Your task to perform on an android device: What's the news in Bangladesh? Image 0: 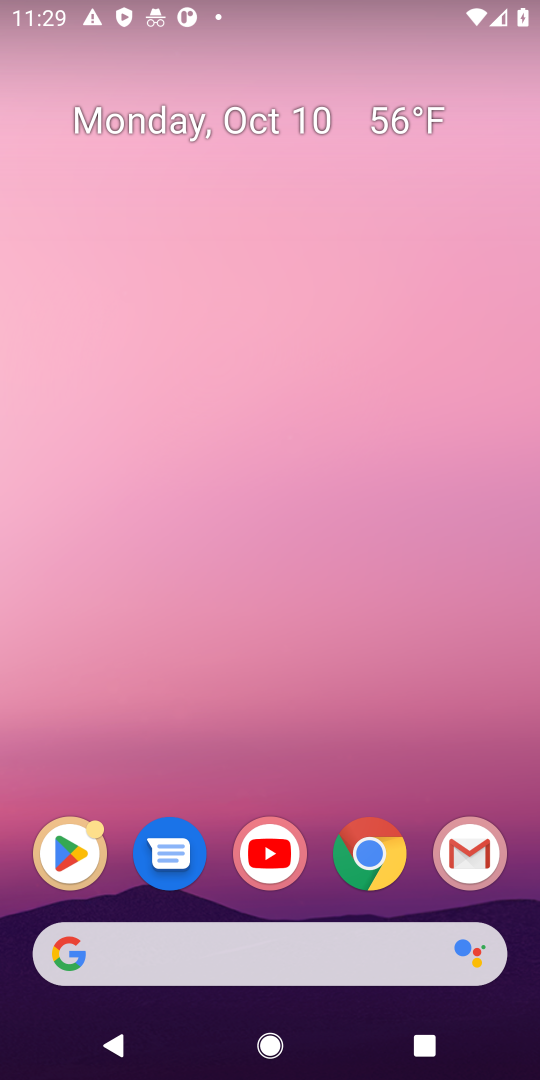
Step 0: drag from (345, 769) to (358, 20)
Your task to perform on an android device: What's the news in Bangladesh? Image 1: 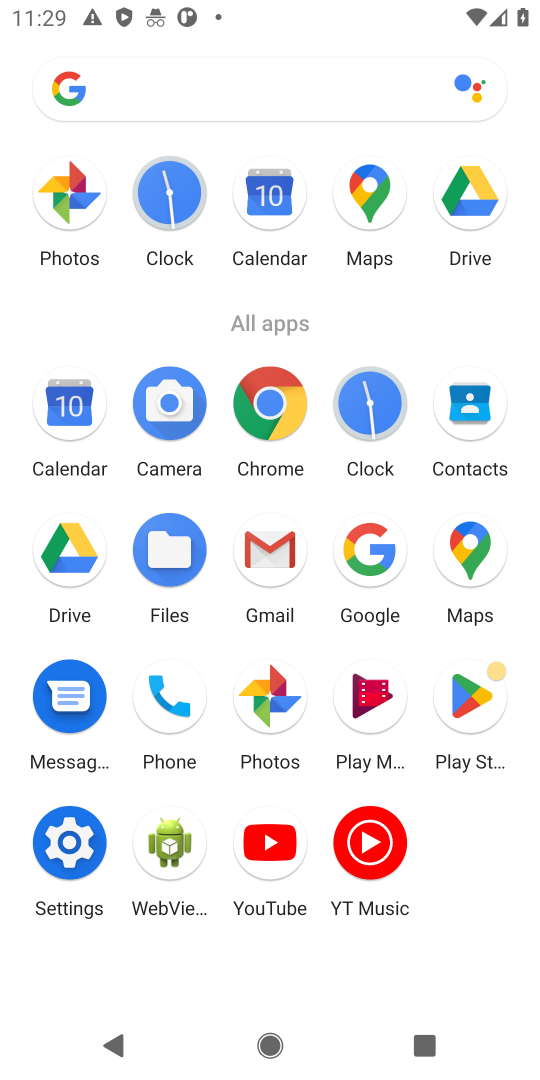
Step 1: drag from (468, 158) to (47, 856)
Your task to perform on an android device: What's the news in Bangladesh? Image 2: 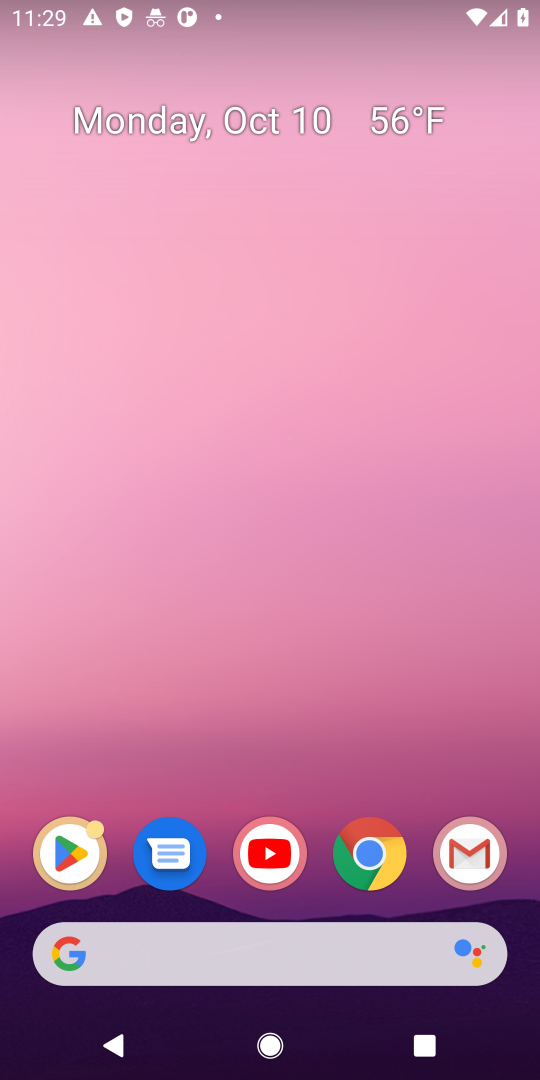
Step 2: click (381, 854)
Your task to perform on an android device: What's the news in Bangladesh? Image 3: 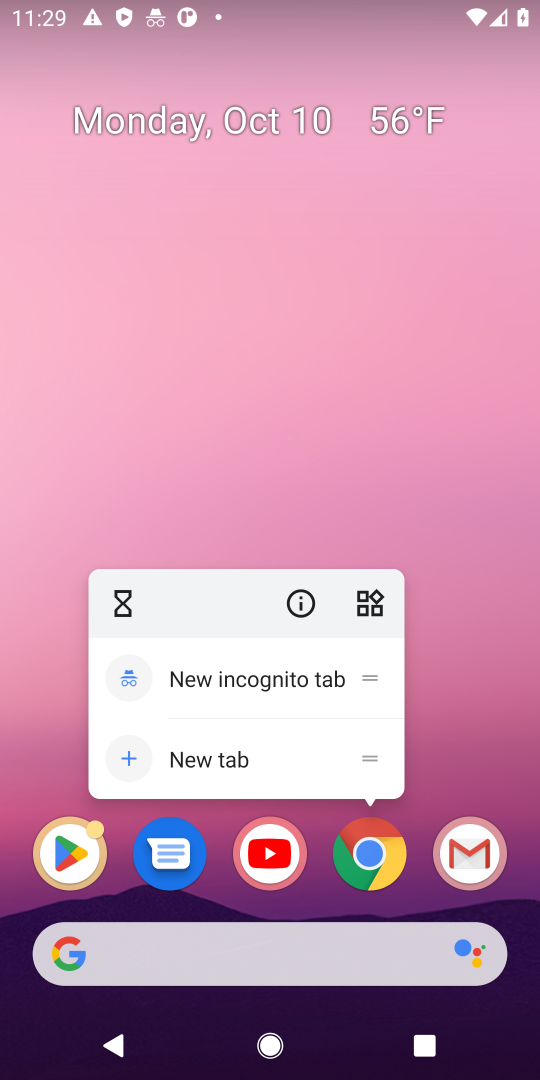
Step 3: click (367, 853)
Your task to perform on an android device: What's the news in Bangladesh? Image 4: 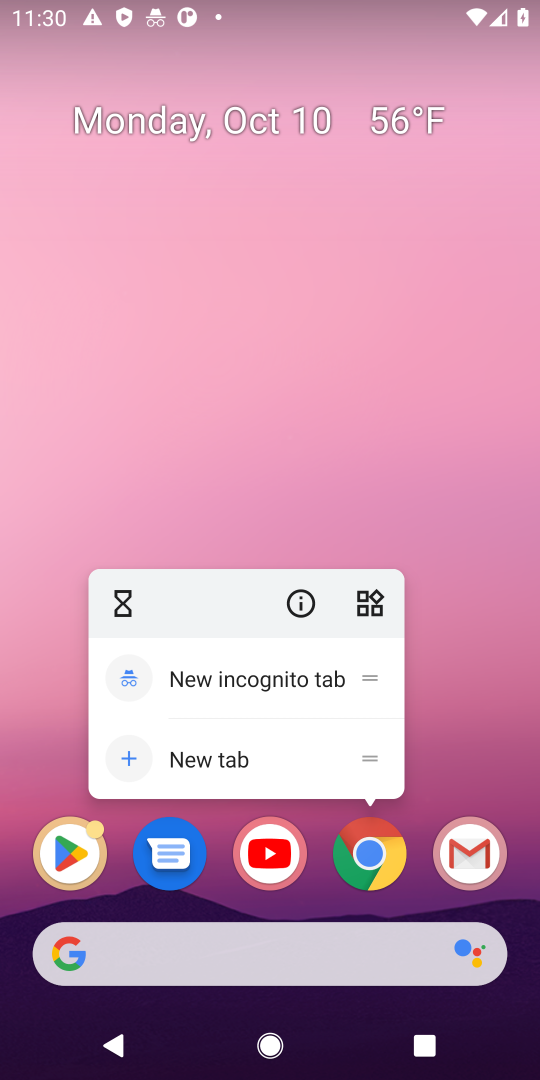
Step 4: click (412, 720)
Your task to perform on an android device: What's the news in Bangladesh? Image 5: 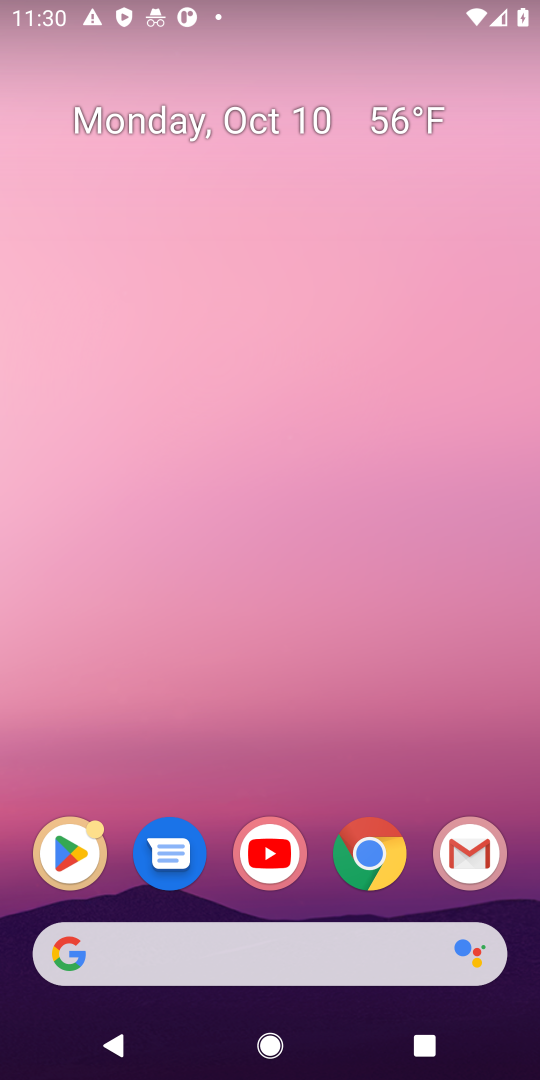
Step 5: drag from (425, 782) to (427, 23)
Your task to perform on an android device: What's the news in Bangladesh? Image 6: 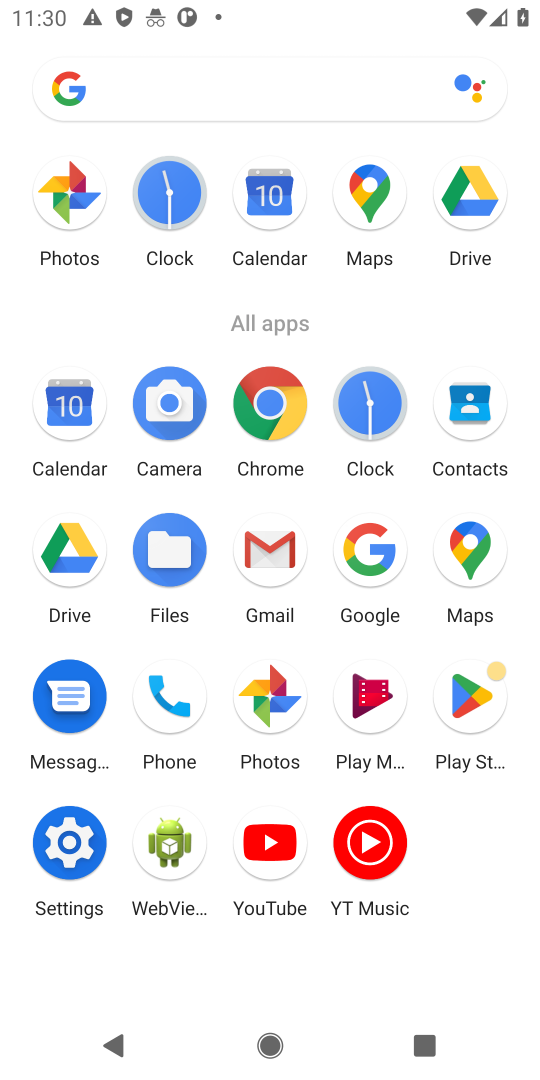
Step 6: click (269, 417)
Your task to perform on an android device: What's the news in Bangladesh? Image 7: 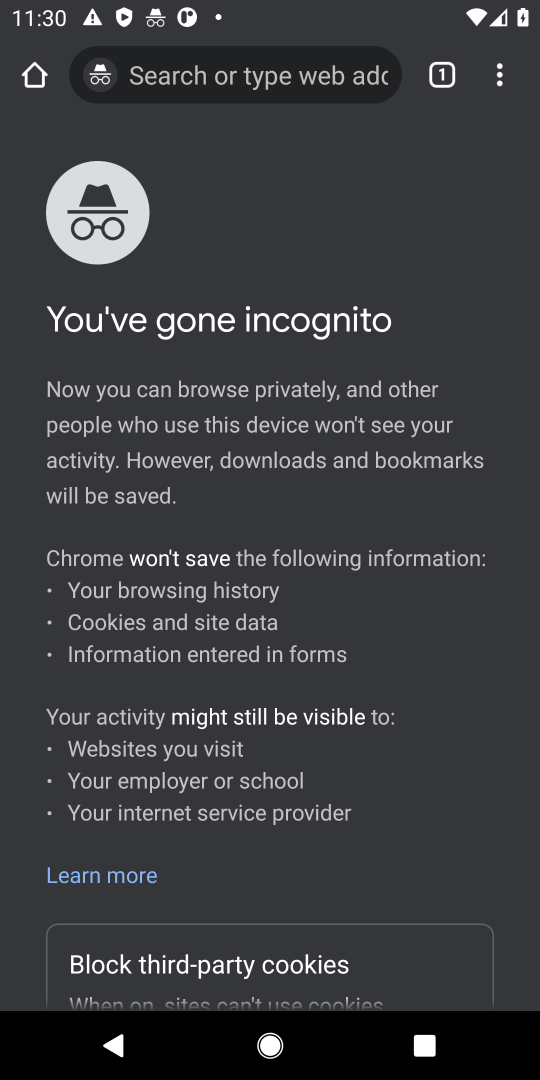
Step 7: drag from (508, 78) to (217, 164)
Your task to perform on an android device: What's the news in Bangladesh? Image 8: 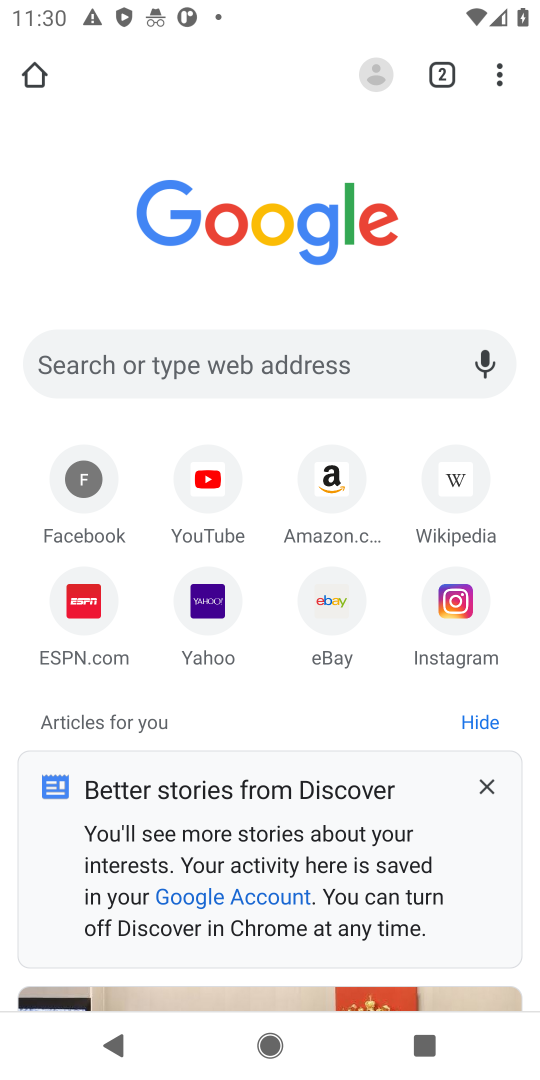
Step 8: click (310, 364)
Your task to perform on an android device: What's the news in Bangladesh? Image 9: 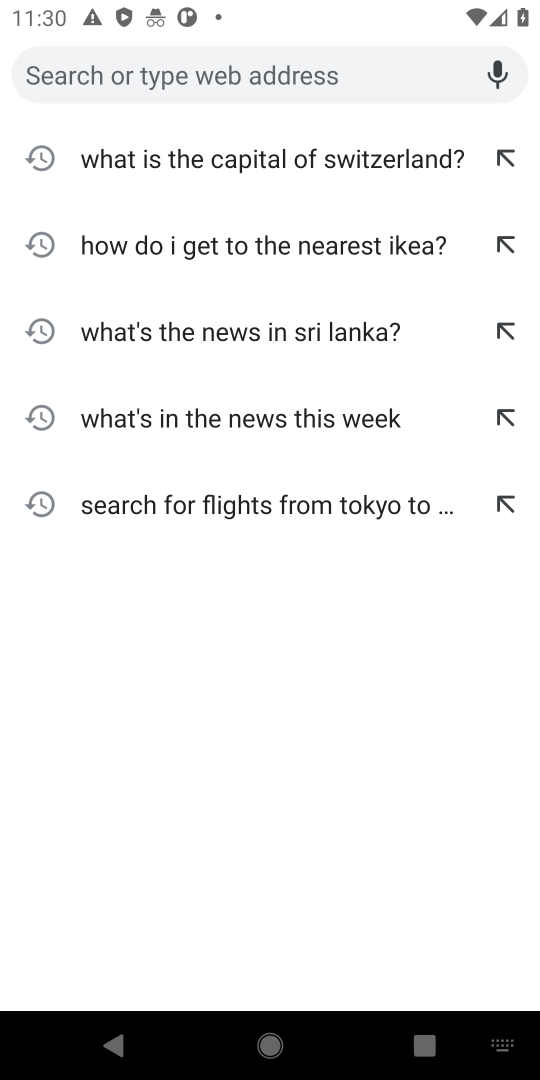
Step 9: type "What's the news in Bangladesh?"
Your task to perform on an android device: What's the news in Bangladesh? Image 10: 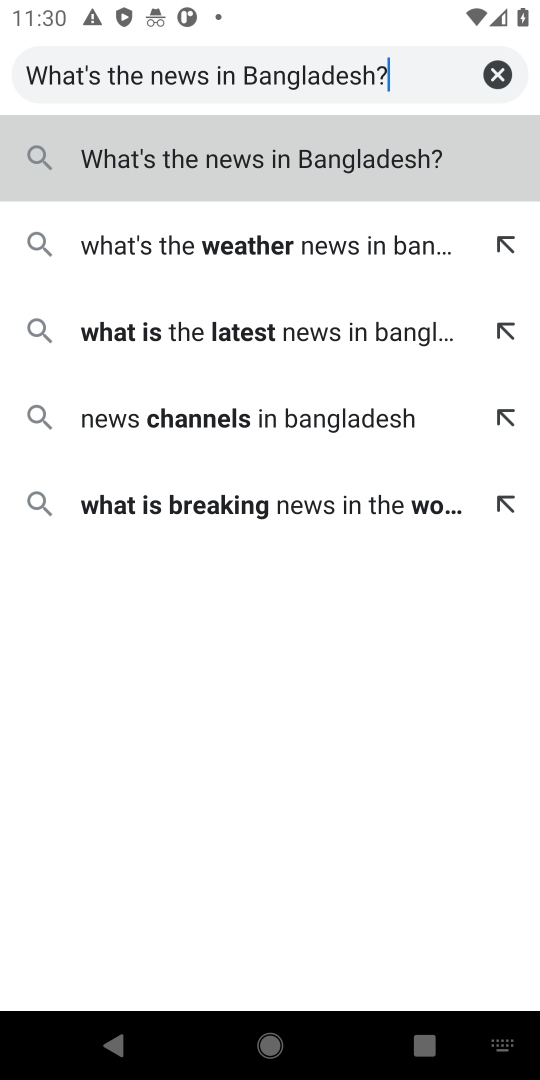
Step 10: click (296, 152)
Your task to perform on an android device: What's the news in Bangladesh? Image 11: 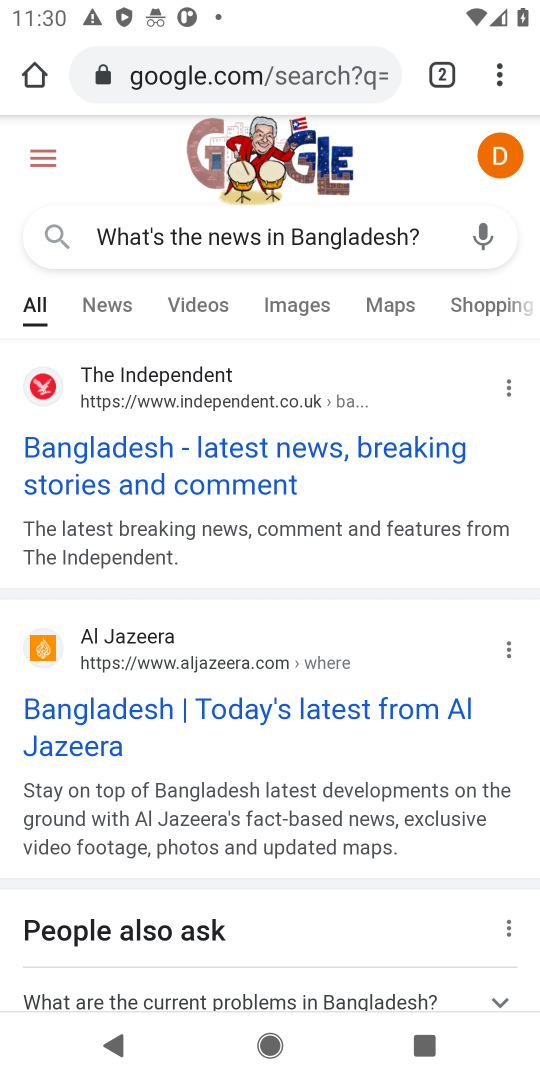
Step 11: task complete